Your task to perform on an android device: Open calendar and show me the first week of next month Image 0: 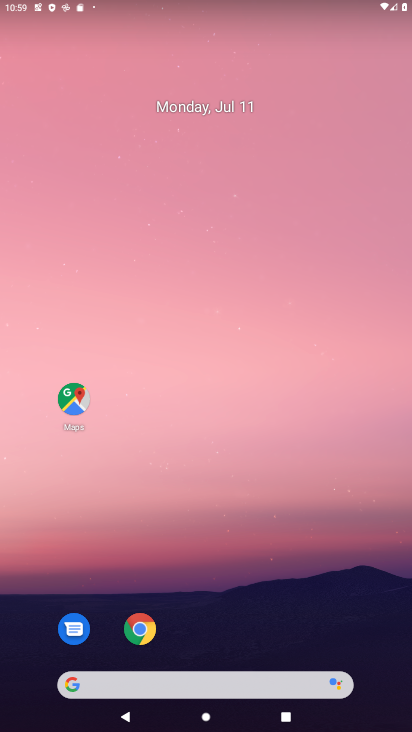
Step 0: drag from (271, 628) to (228, 67)
Your task to perform on an android device: Open calendar and show me the first week of next month Image 1: 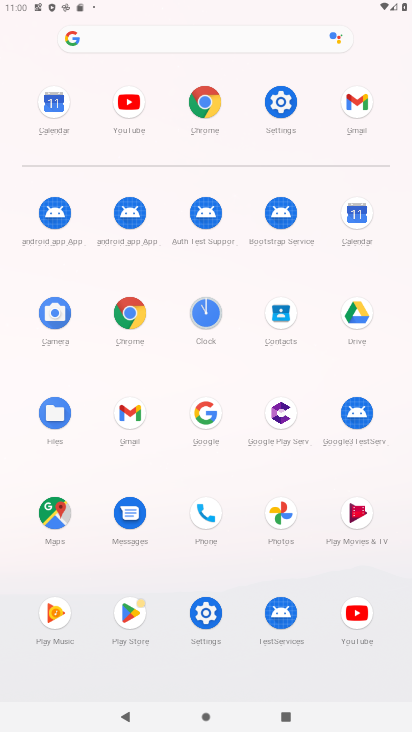
Step 1: click (358, 221)
Your task to perform on an android device: Open calendar and show me the first week of next month Image 2: 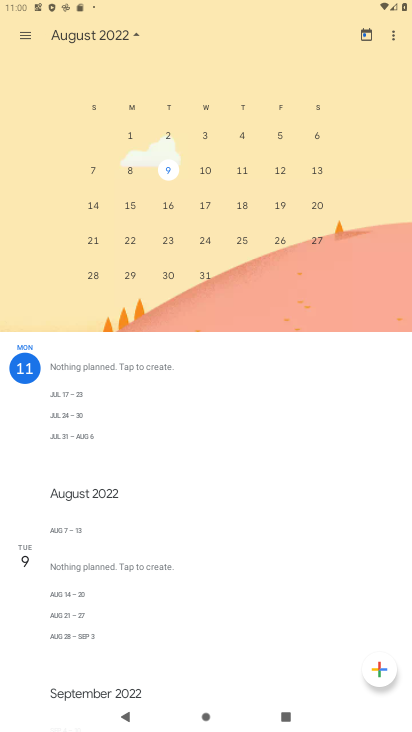
Step 2: click (173, 128)
Your task to perform on an android device: Open calendar and show me the first week of next month Image 3: 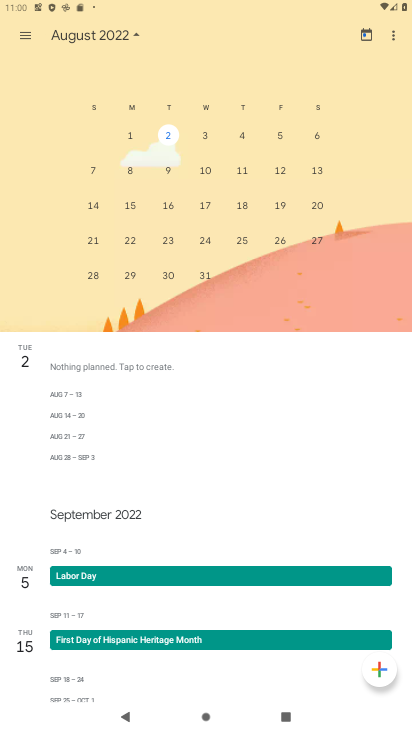
Step 3: task complete